Your task to perform on an android device: Search for duracell triple a on amazon, select the first entry, add it to the cart, then select checkout. Image 0: 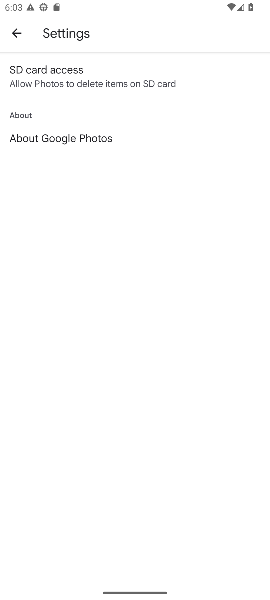
Step 0: press home button
Your task to perform on an android device: Search for duracell triple a on amazon, select the first entry, add it to the cart, then select checkout. Image 1: 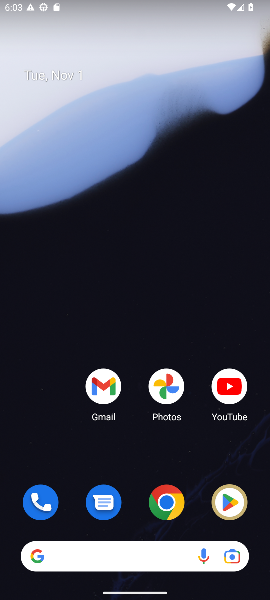
Step 1: click (170, 500)
Your task to perform on an android device: Search for duracell triple a on amazon, select the first entry, add it to the cart, then select checkout. Image 2: 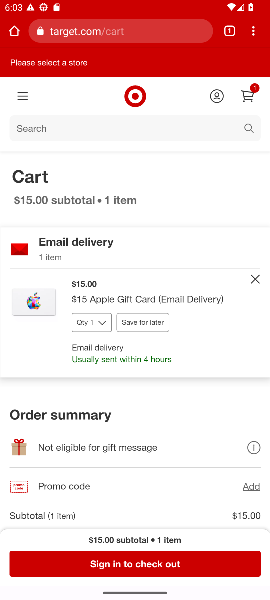
Step 2: click (17, 30)
Your task to perform on an android device: Search for duracell triple a on amazon, select the first entry, add it to the cart, then select checkout. Image 3: 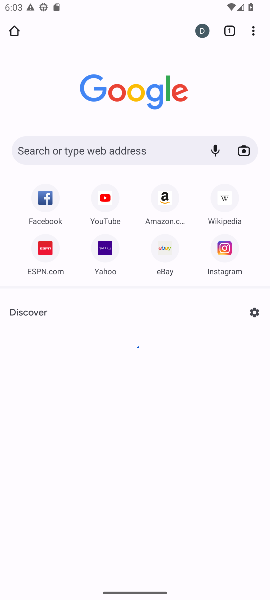
Step 3: click (95, 145)
Your task to perform on an android device: Search for duracell triple a on amazon, select the first entry, add it to the cart, then select checkout. Image 4: 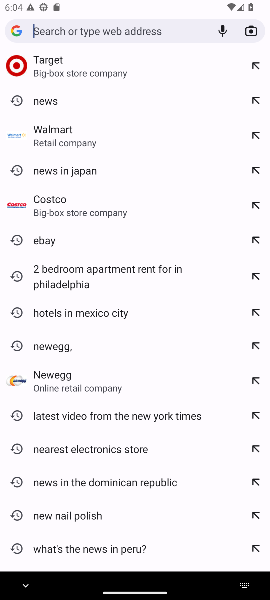
Step 4: type "amazon"
Your task to perform on an android device: Search for duracell triple a on amazon, select the first entry, add it to the cart, then select checkout. Image 5: 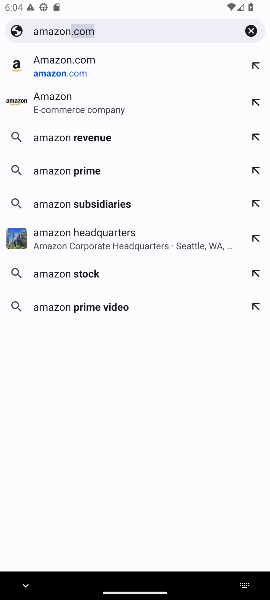
Step 5: click (75, 63)
Your task to perform on an android device: Search for duracell triple a on amazon, select the first entry, add it to the cart, then select checkout. Image 6: 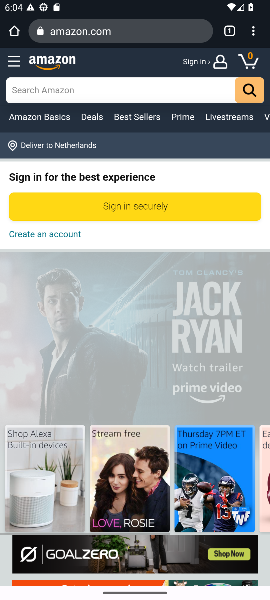
Step 6: click (88, 91)
Your task to perform on an android device: Search for duracell triple a on amazon, select the first entry, add it to the cart, then select checkout. Image 7: 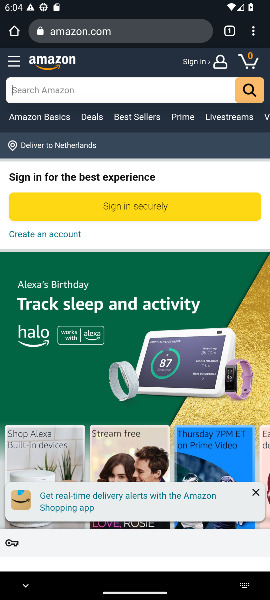
Step 7: type "duracell triple a "
Your task to perform on an android device: Search for duracell triple a on amazon, select the first entry, add it to the cart, then select checkout. Image 8: 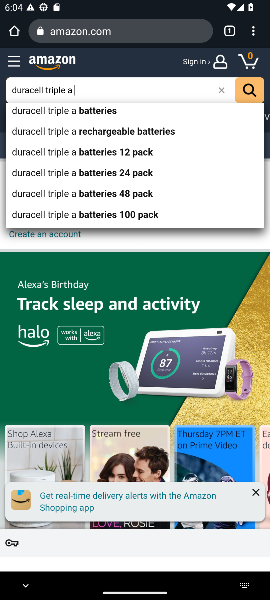
Step 8: click (70, 109)
Your task to perform on an android device: Search for duracell triple a on amazon, select the first entry, add it to the cart, then select checkout. Image 9: 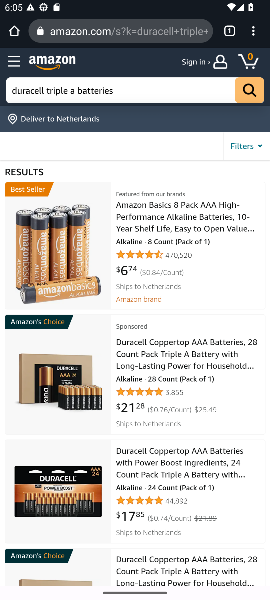
Step 9: click (188, 226)
Your task to perform on an android device: Search for duracell triple a on amazon, select the first entry, add it to the cart, then select checkout. Image 10: 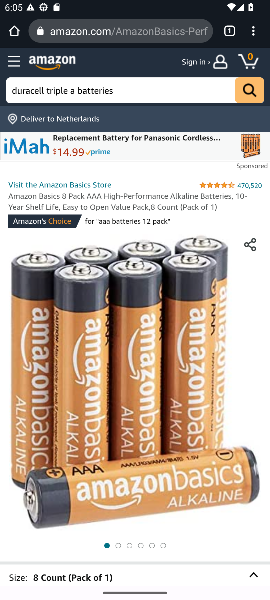
Step 10: drag from (242, 369) to (201, 169)
Your task to perform on an android device: Search for duracell triple a on amazon, select the first entry, add it to the cart, then select checkout. Image 11: 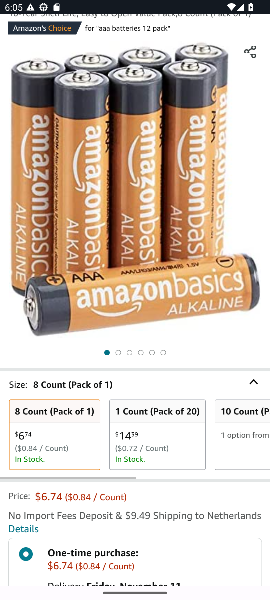
Step 11: drag from (144, 304) to (89, 34)
Your task to perform on an android device: Search for duracell triple a on amazon, select the first entry, add it to the cart, then select checkout. Image 12: 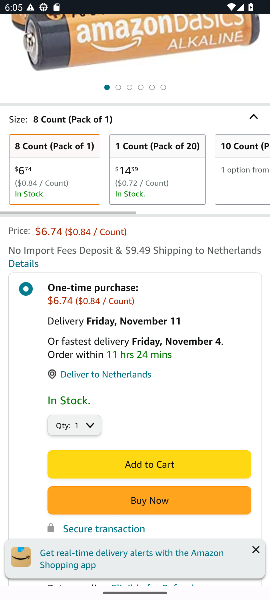
Step 12: click (149, 462)
Your task to perform on an android device: Search for duracell triple a on amazon, select the first entry, add it to the cart, then select checkout. Image 13: 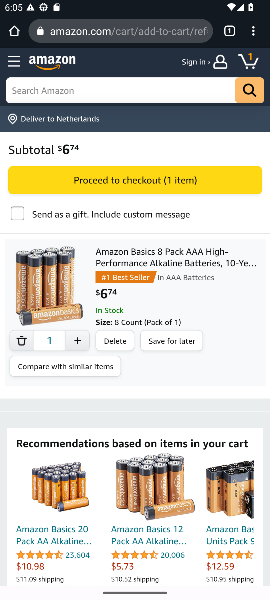
Step 13: click (248, 55)
Your task to perform on an android device: Search for duracell triple a on amazon, select the first entry, add it to the cart, then select checkout. Image 14: 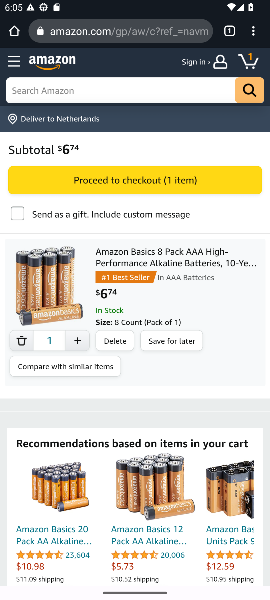
Step 14: click (131, 180)
Your task to perform on an android device: Search for duracell triple a on amazon, select the first entry, add it to the cart, then select checkout. Image 15: 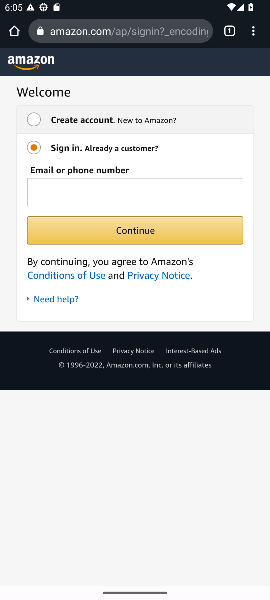
Step 15: task complete